Your task to perform on an android device: change timer sound Image 0: 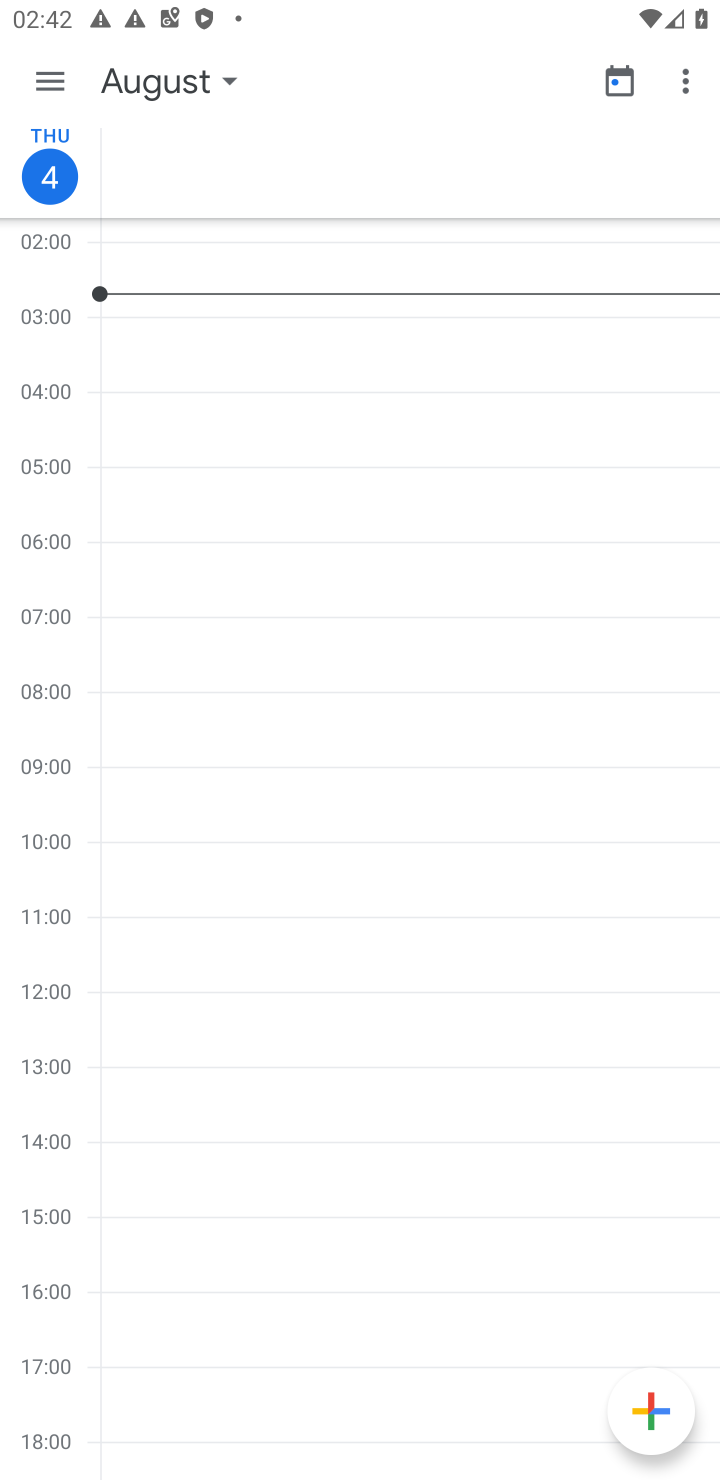
Step 0: press home button
Your task to perform on an android device: change timer sound Image 1: 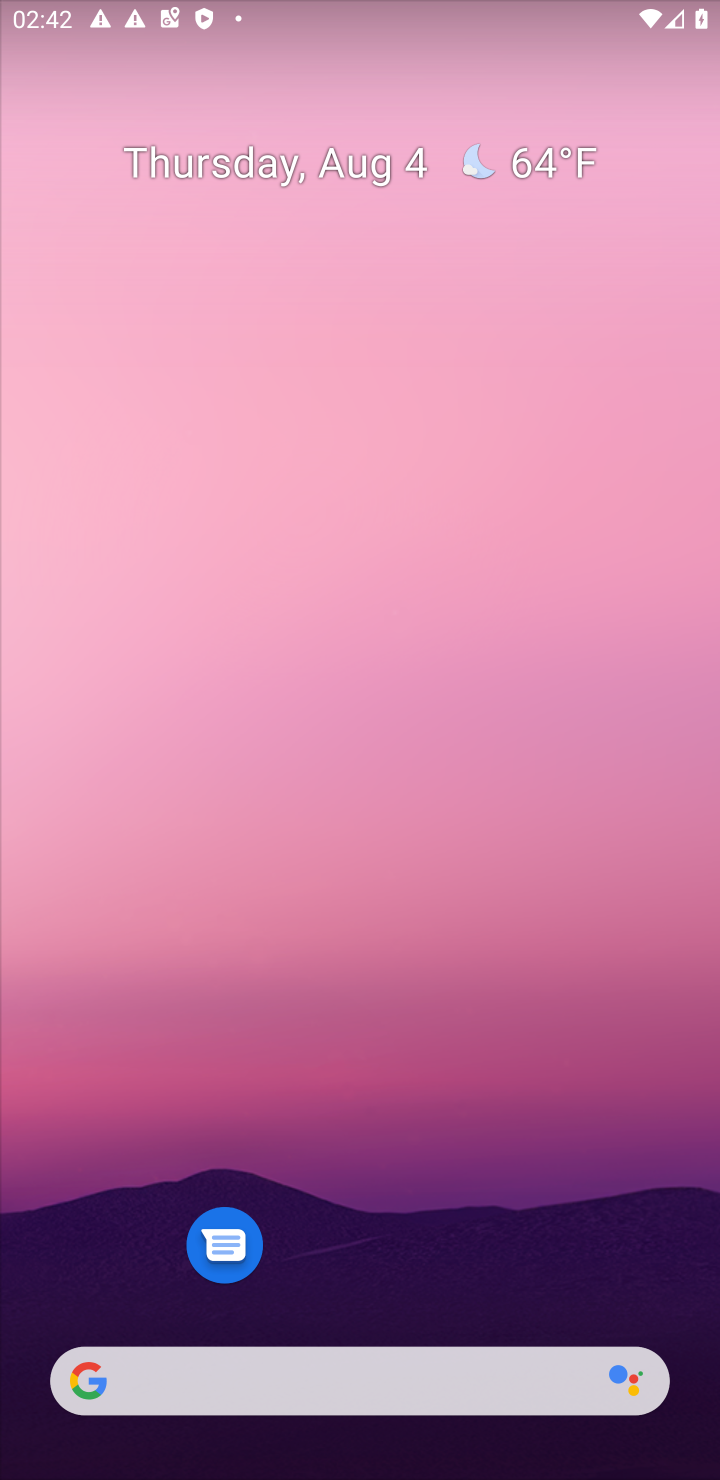
Step 1: drag from (371, 1384) to (524, 55)
Your task to perform on an android device: change timer sound Image 2: 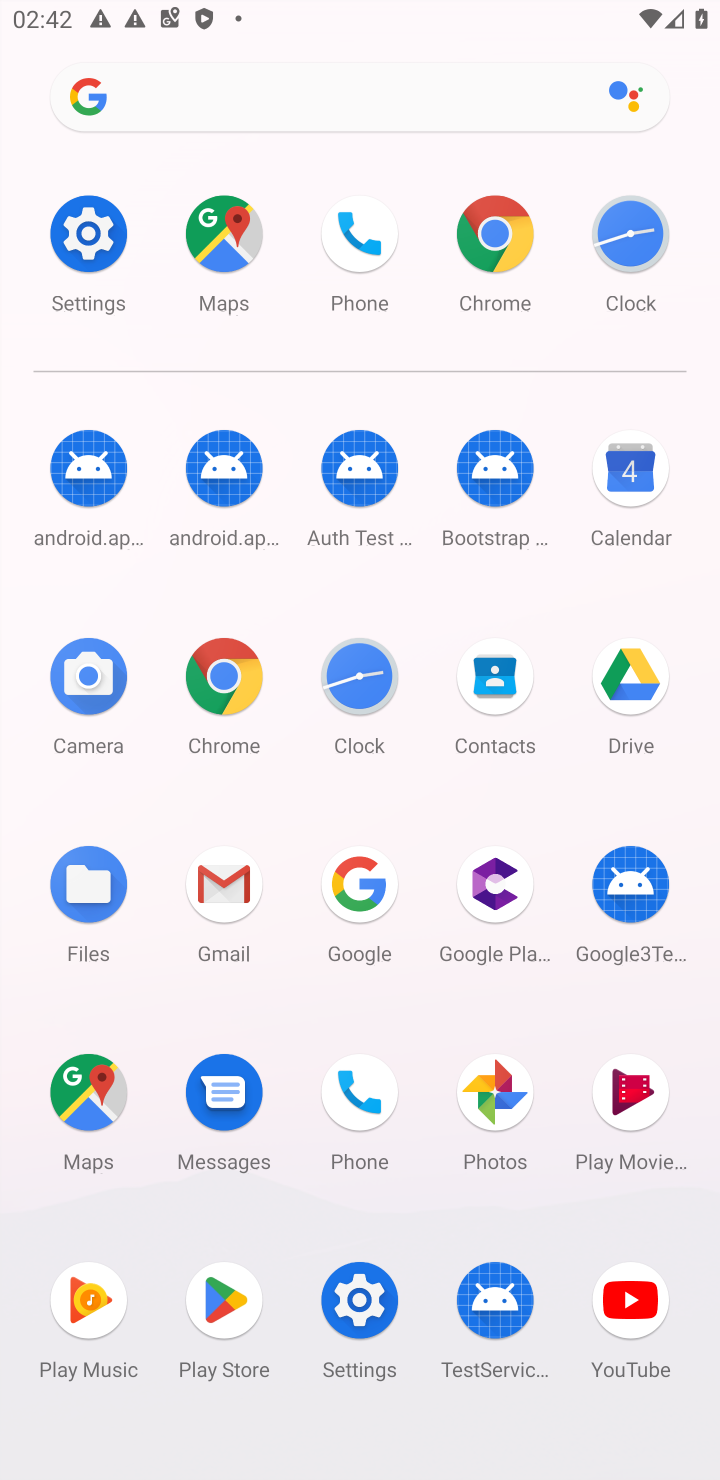
Step 2: click (357, 680)
Your task to perform on an android device: change timer sound Image 3: 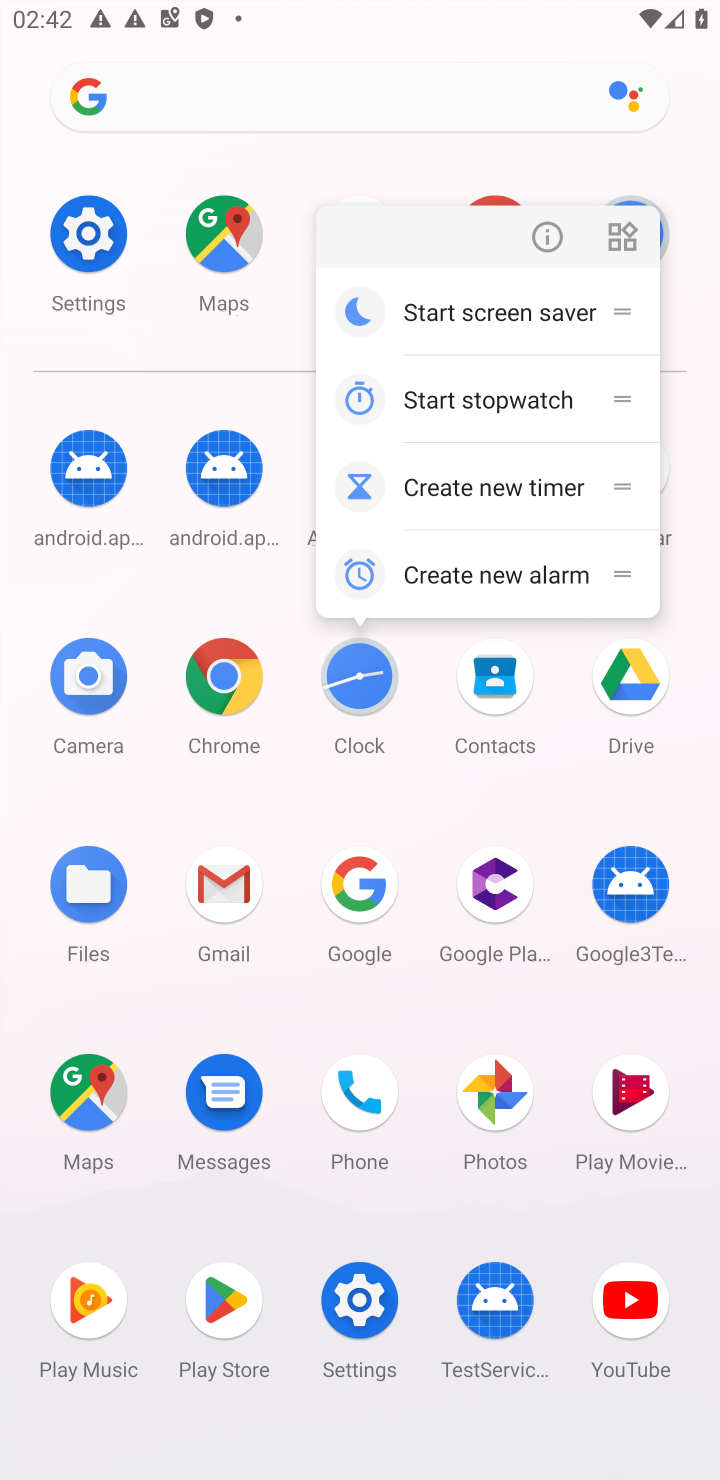
Step 3: click (374, 688)
Your task to perform on an android device: change timer sound Image 4: 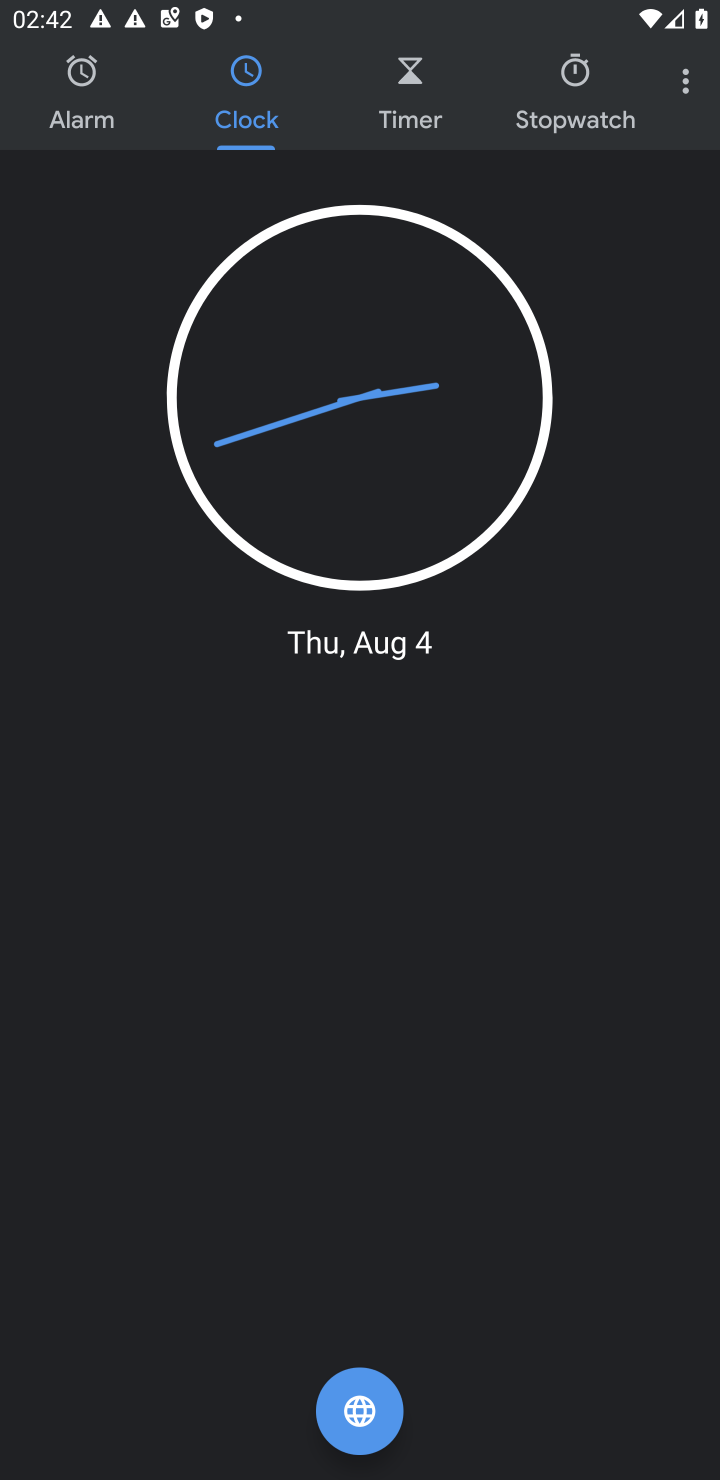
Step 4: click (374, 688)
Your task to perform on an android device: change timer sound Image 5: 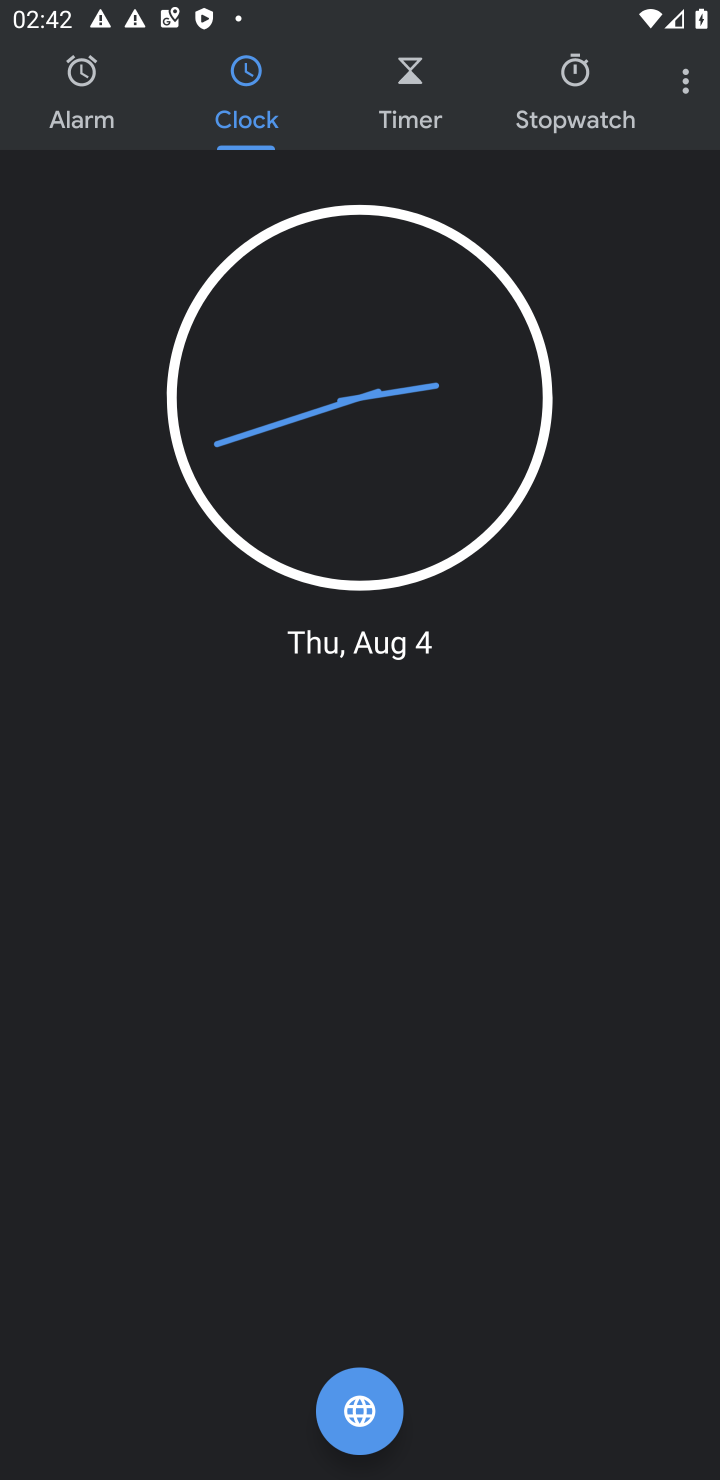
Step 5: click (692, 74)
Your task to perform on an android device: change timer sound Image 6: 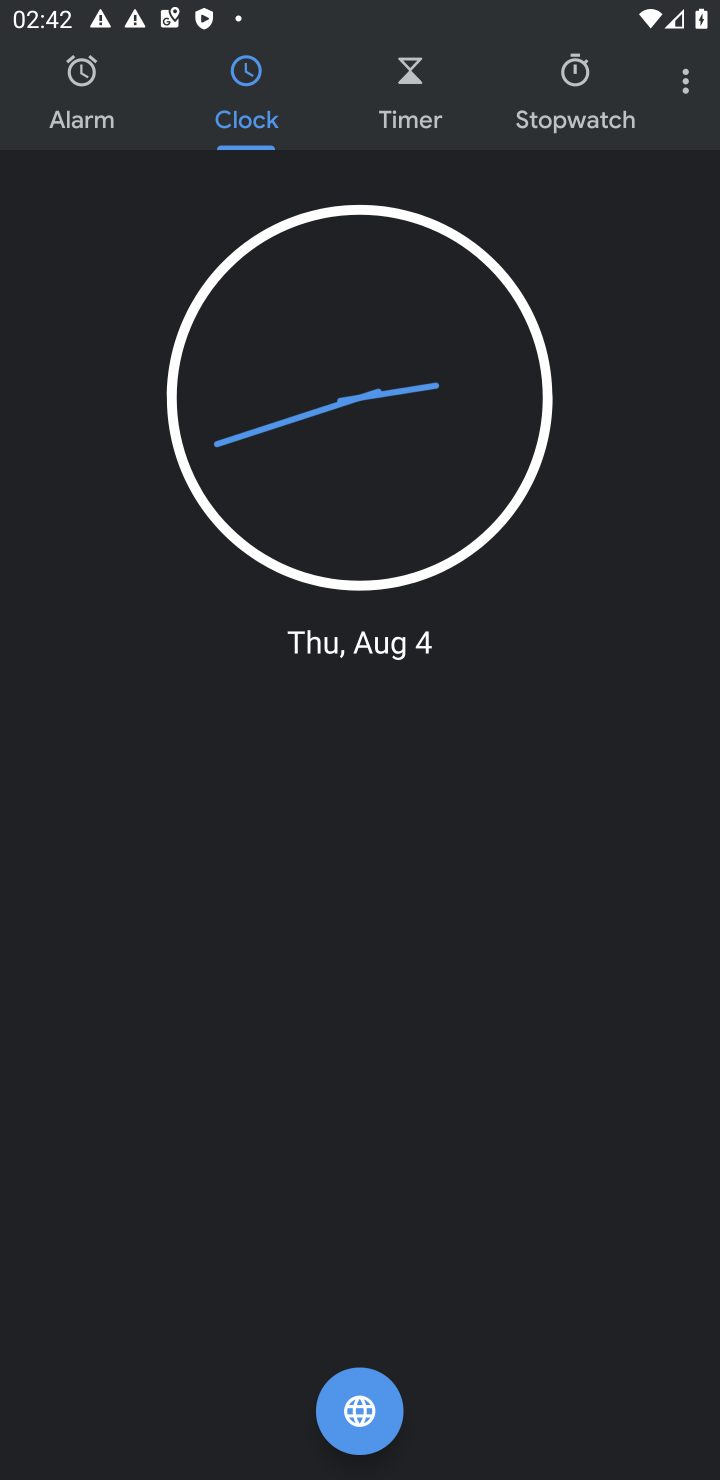
Step 6: click (697, 86)
Your task to perform on an android device: change timer sound Image 7: 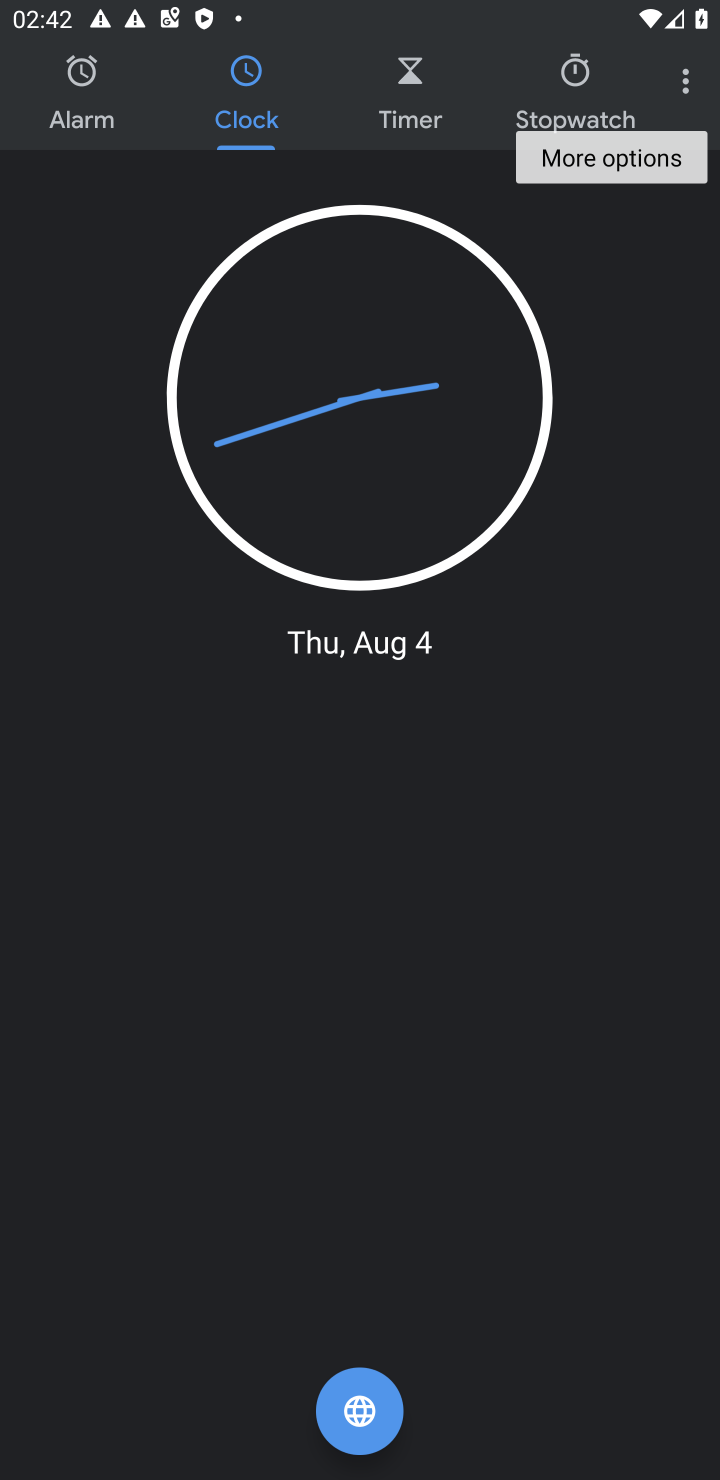
Step 7: click (693, 79)
Your task to perform on an android device: change timer sound Image 8: 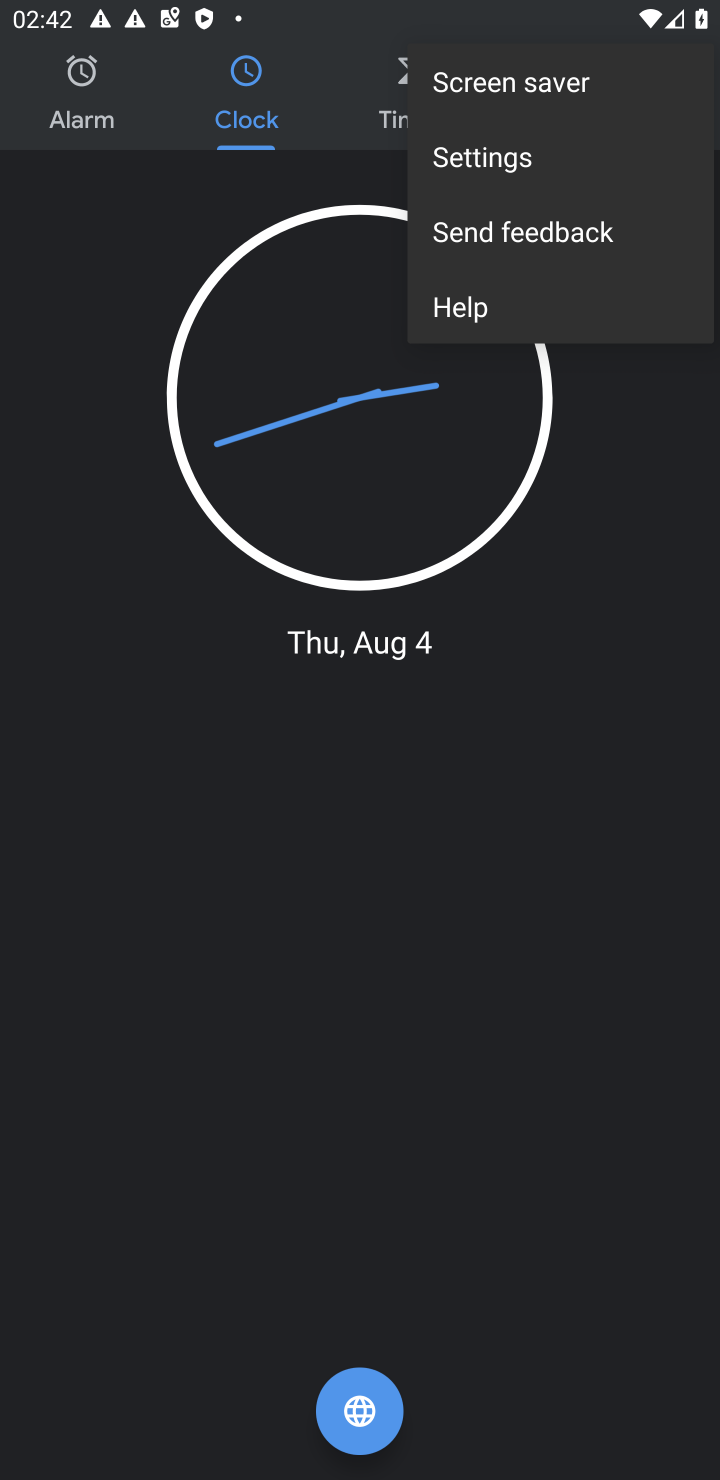
Step 8: click (524, 164)
Your task to perform on an android device: change timer sound Image 9: 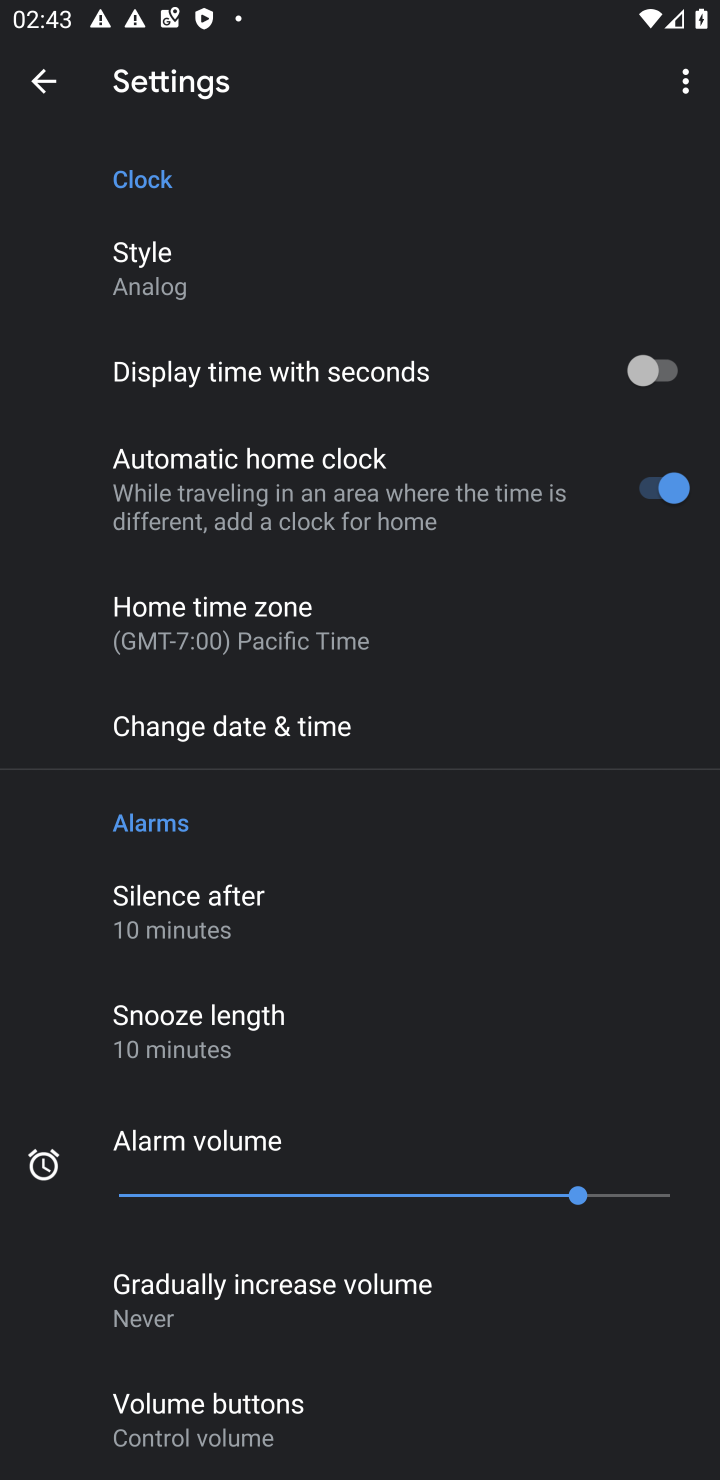
Step 9: drag from (290, 1178) to (436, 137)
Your task to perform on an android device: change timer sound Image 10: 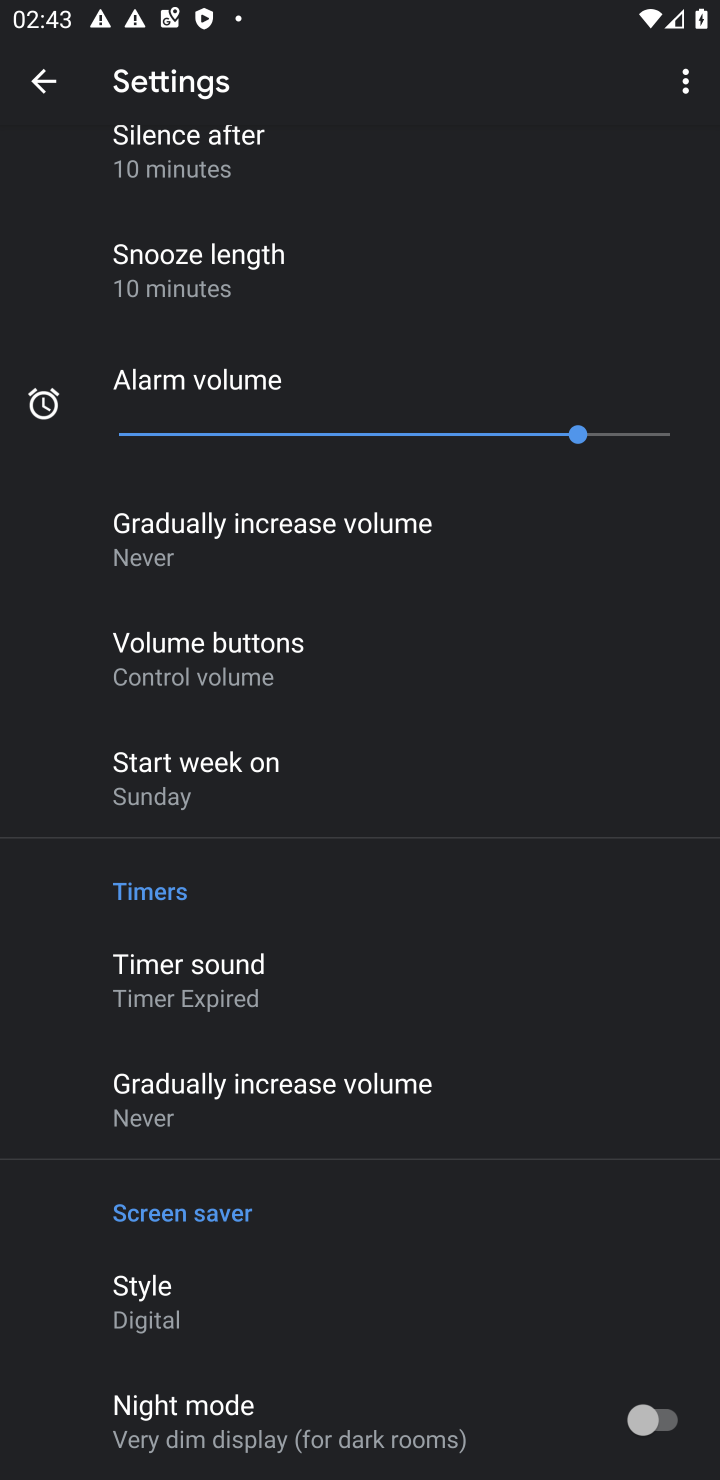
Step 10: click (217, 944)
Your task to perform on an android device: change timer sound Image 11: 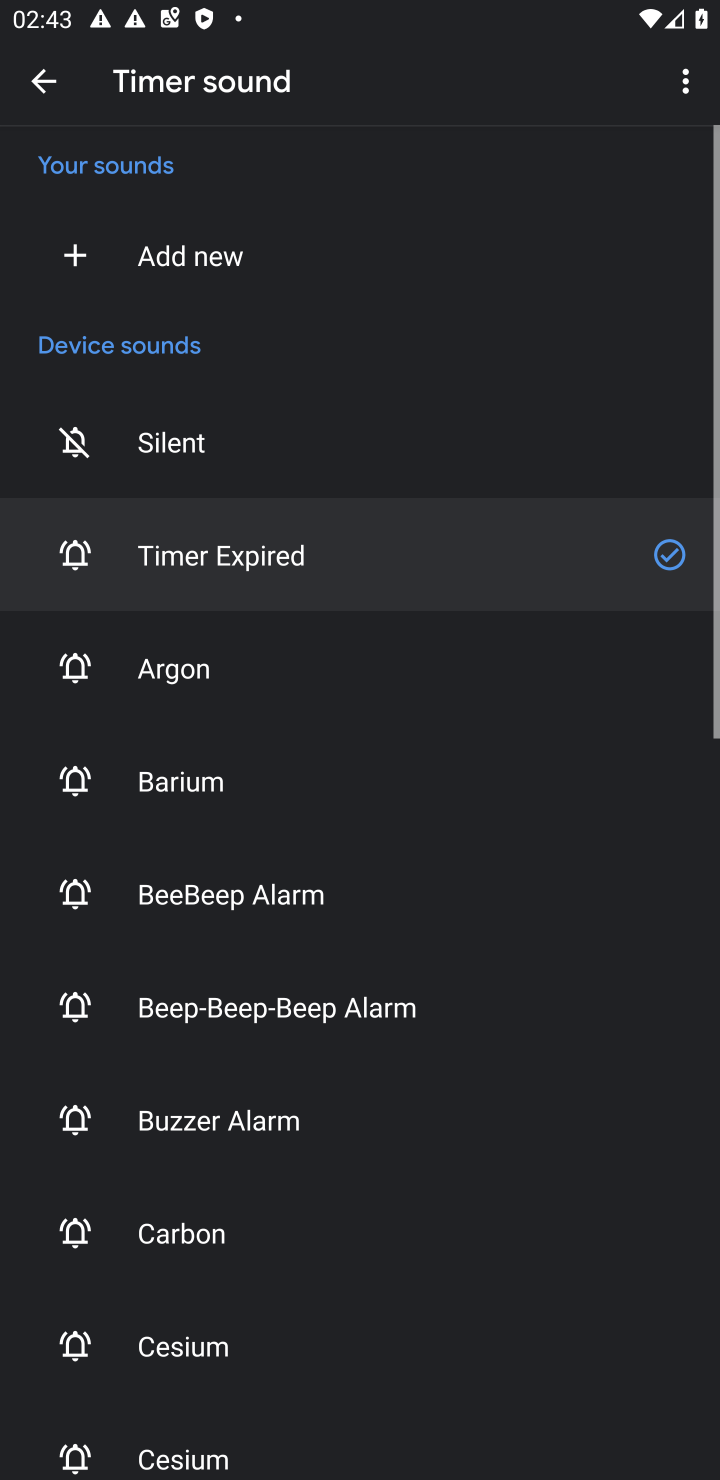
Step 11: click (318, 1076)
Your task to perform on an android device: change timer sound Image 12: 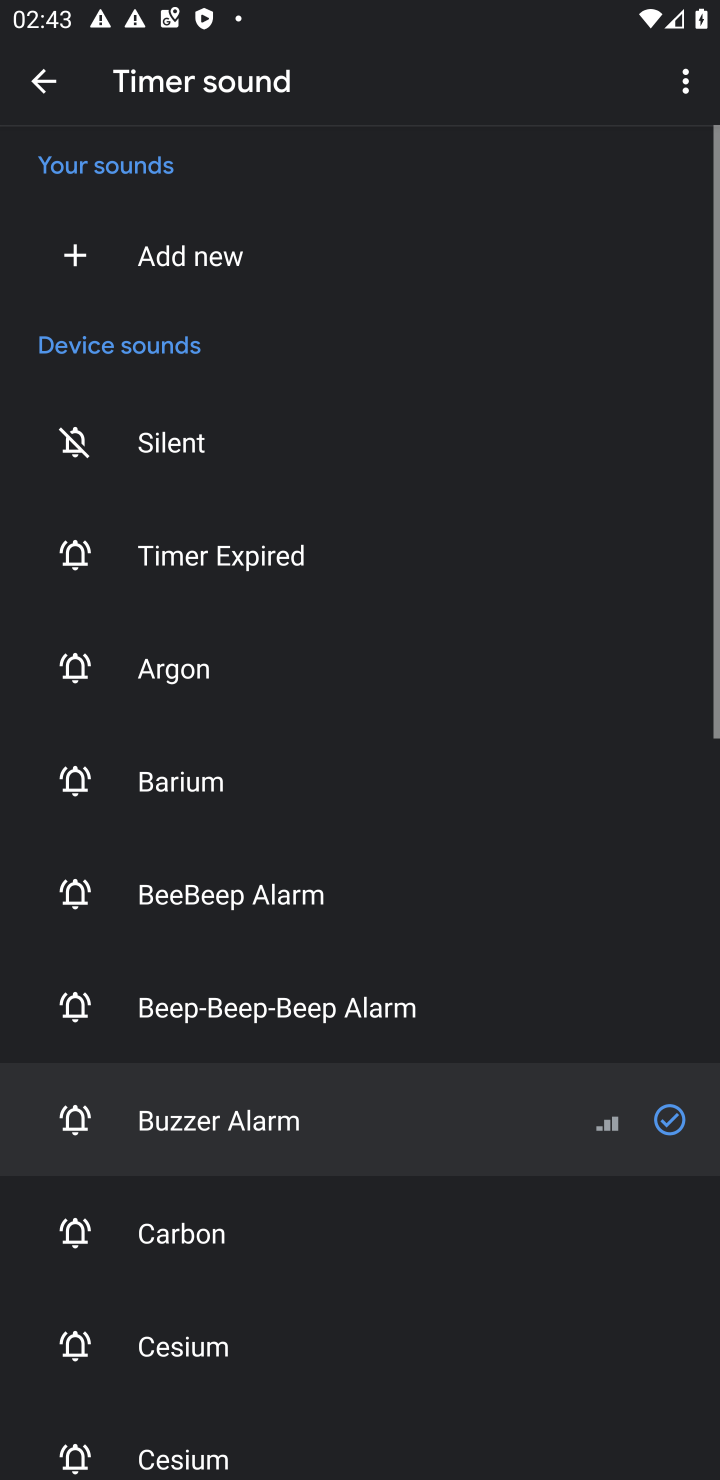
Step 12: task complete